Your task to perform on an android device: turn off sleep mode Image 0: 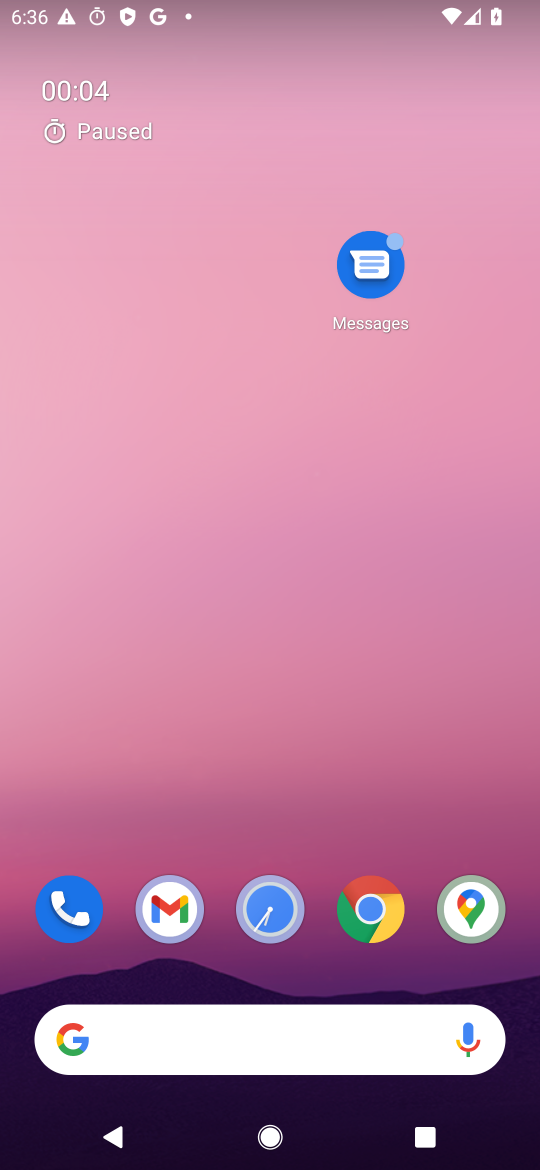
Step 0: drag from (307, 1044) to (475, 150)
Your task to perform on an android device: turn off sleep mode Image 1: 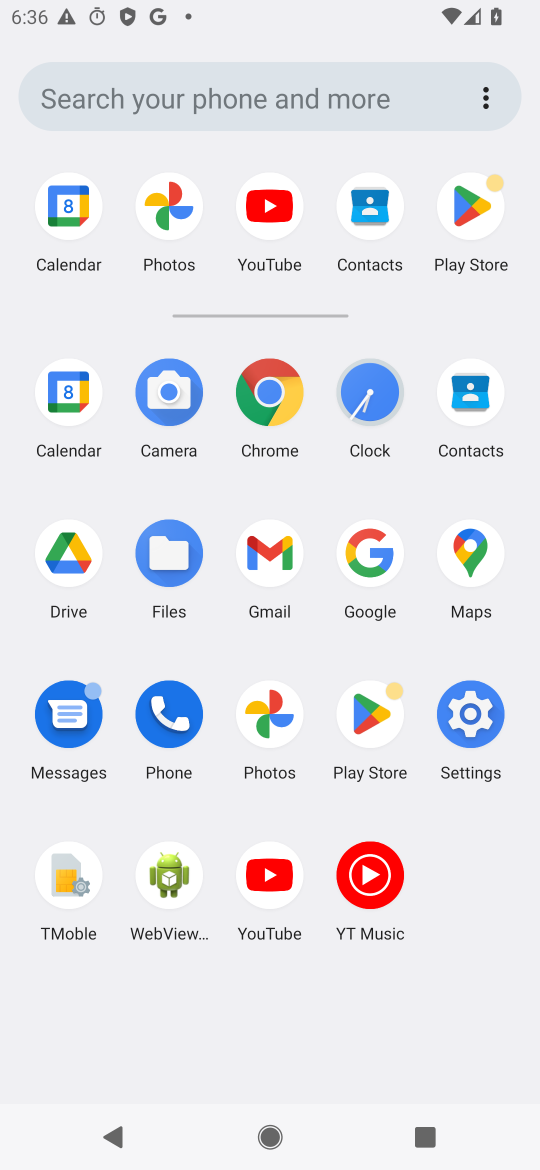
Step 1: click (474, 711)
Your task to perform on an android device: turn off sleep mode Image 2: 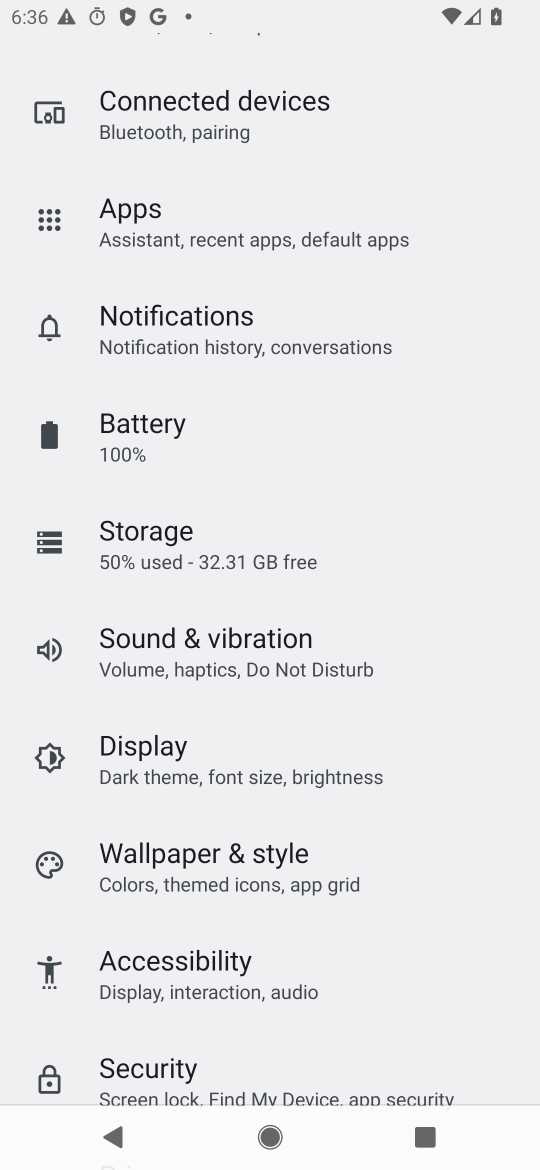
Step 2: click (218, 772)
Your task to perform on an android device: turn off sleep mode Image 3: 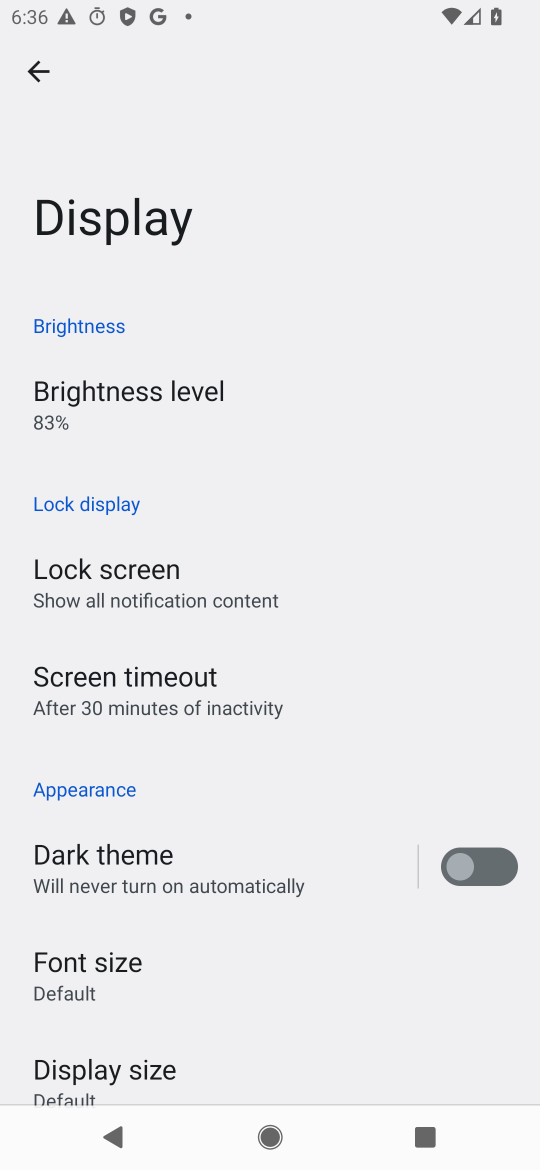
Step 3: task complete